Your task to perform on an android device: Open location settings Image 0: 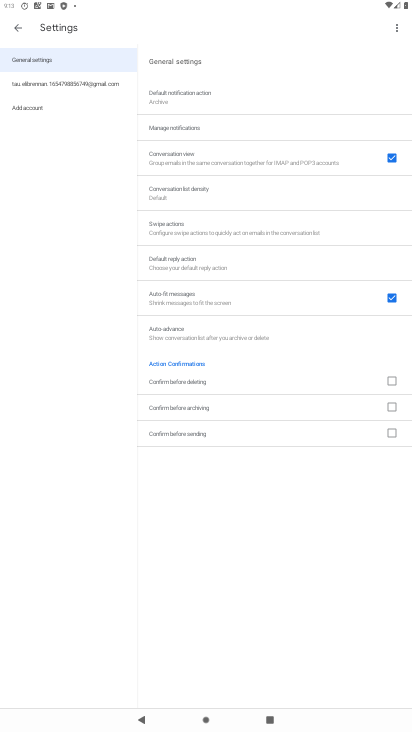
Step 0: press home button
Your task to perform on an android device: Open location settings Image 1: 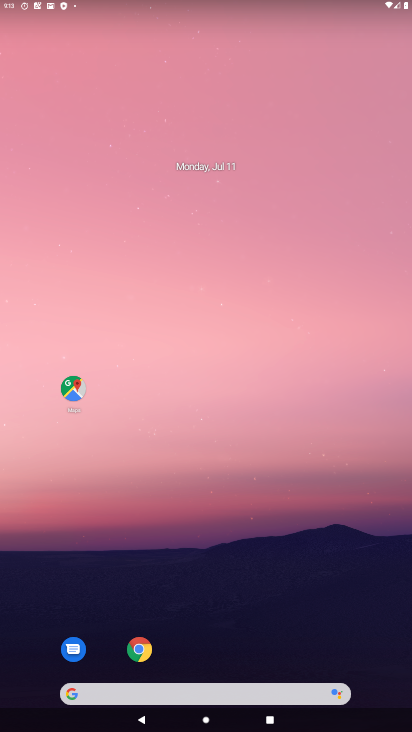
Step 1: drag from (293, 549) to (364, 28)
Your task to perform on an android device: Open location settings Image 2: 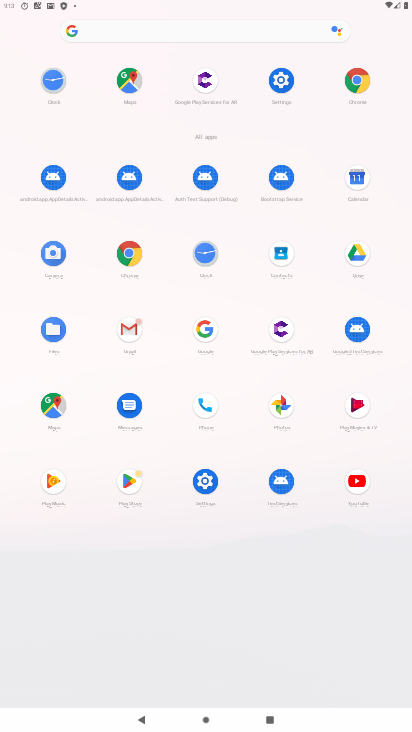
Step 2: click (278, 53)
Your task to perform on an android device: Open location settings Image 3: 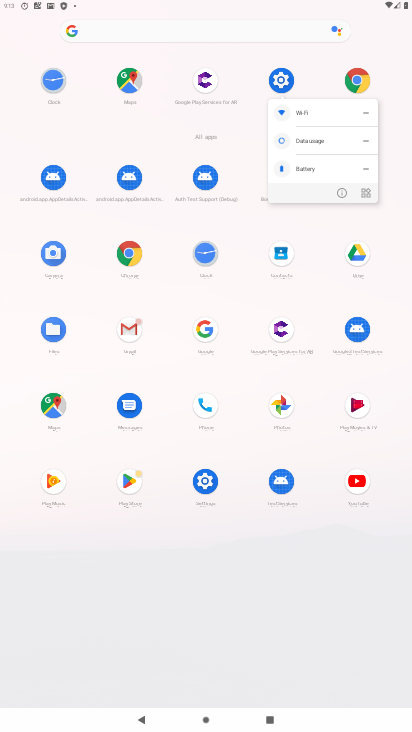
Step 3: click (284, 71)
Your task to perform on an android device: Open location settings Image 4: 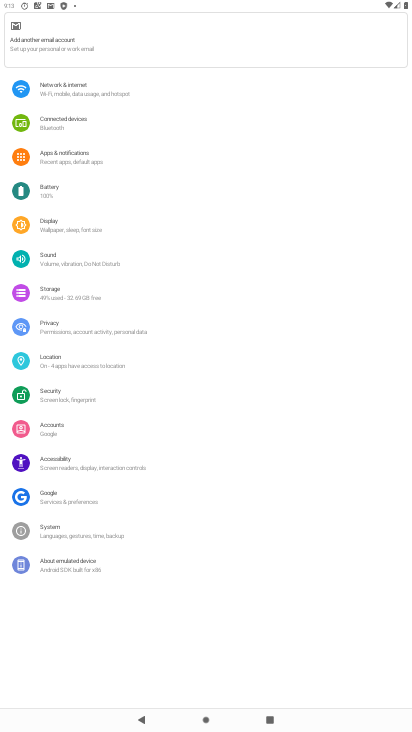
Step 4: click (63, 356)
Your task to perform on an android device: Open location settings Image 5: 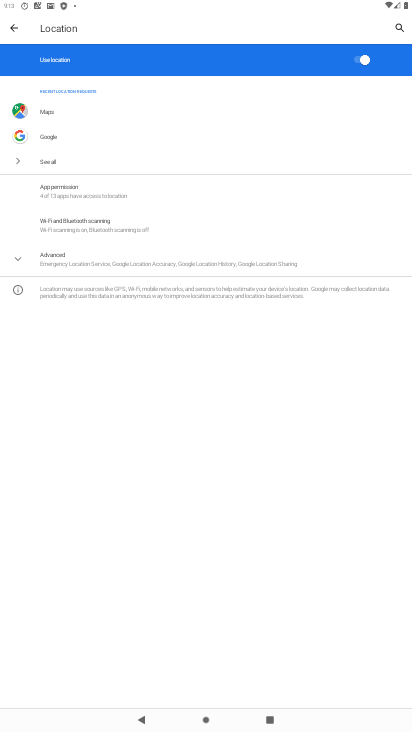
Step 5: task complete